Your task to perform on an android device: Go to ESPN.com Image 0: 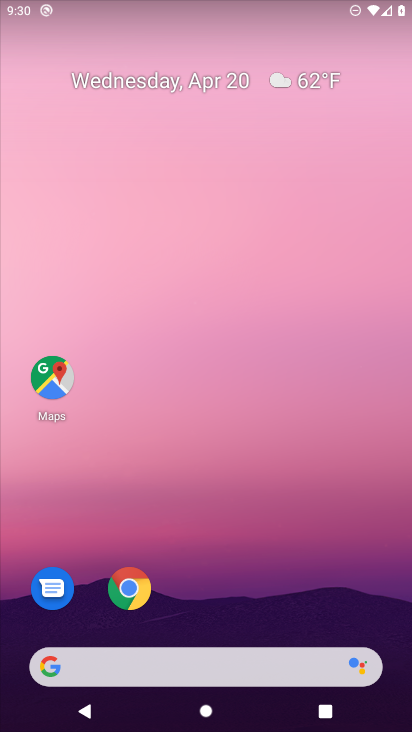
Step 0: drag from (220, 632) to (262, 24)
Your task to perform on an android device: Go to ESPN.com Image 1: 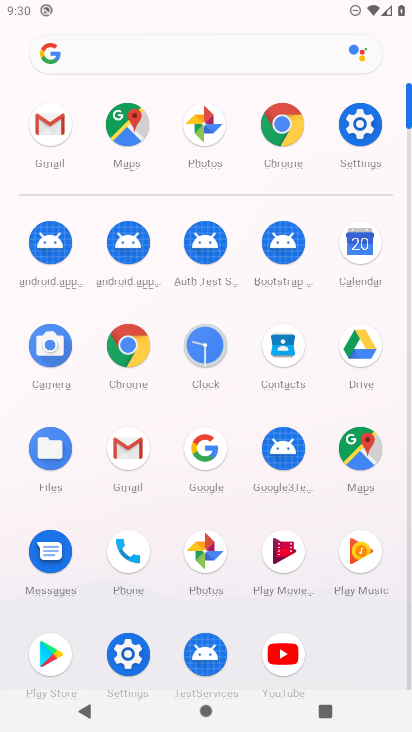
Step 1: click (125, 339)
Your task to perform on an android device: Go to ESPN.com Image 2: 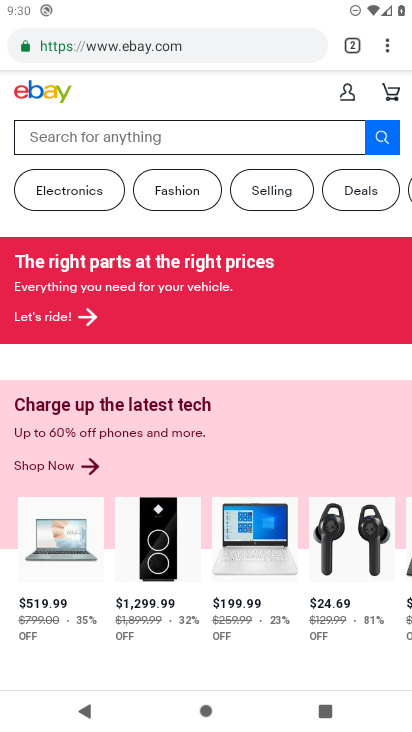
Step 2: click (355, 40)
Your task to perform on an android device: Go to ESPN.com Image 3: 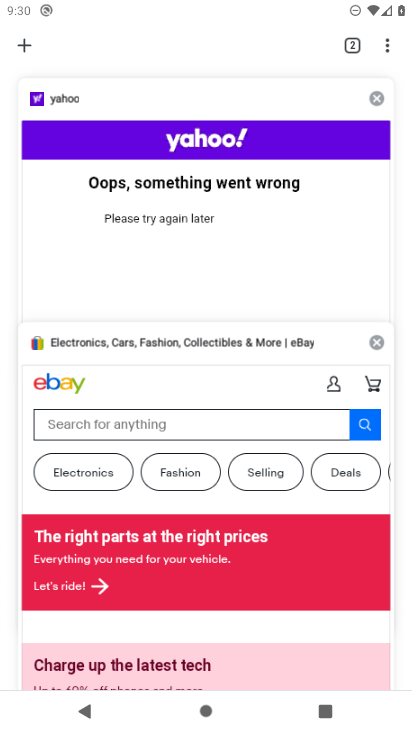
Step 3: click (374, 95)
Your task to perform on an android device: Go to ESPN.com Image 4: 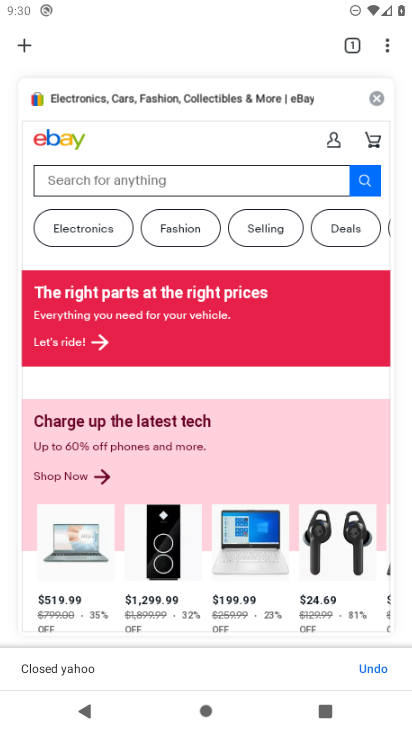
Step 4: click (374, 92)
Your task to perform on an android device: Go to ESPN.com Image 5: 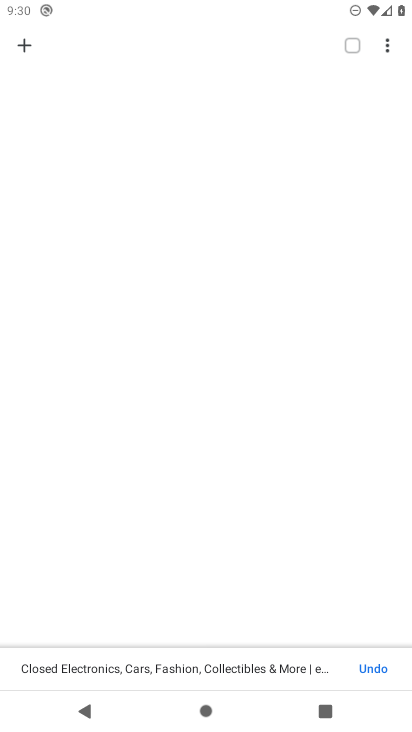
Step 5: click (27, 42)
Your task to perform on an android device: Go to ESPN.com Image 6: 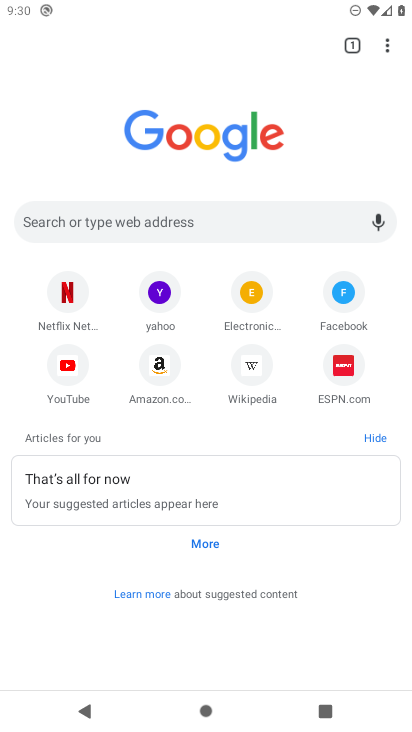
Step 6: click (123, 216)
Your task to perform on an android device: Go to ESPN.com Image 7: 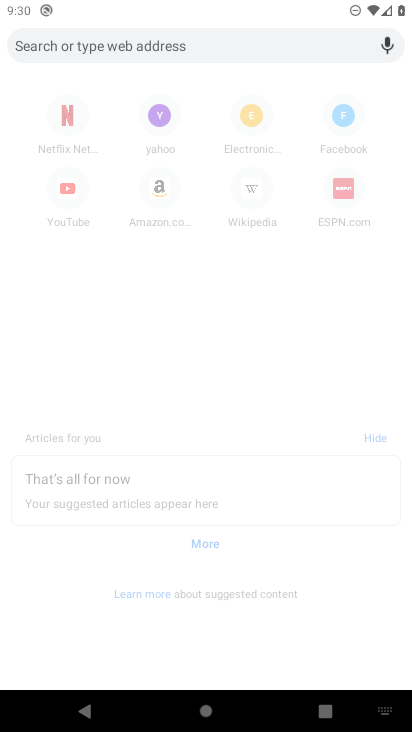
Step 7: click (288, 295)
Your task to perform on an android device: Go to ESPN.com Image 8: 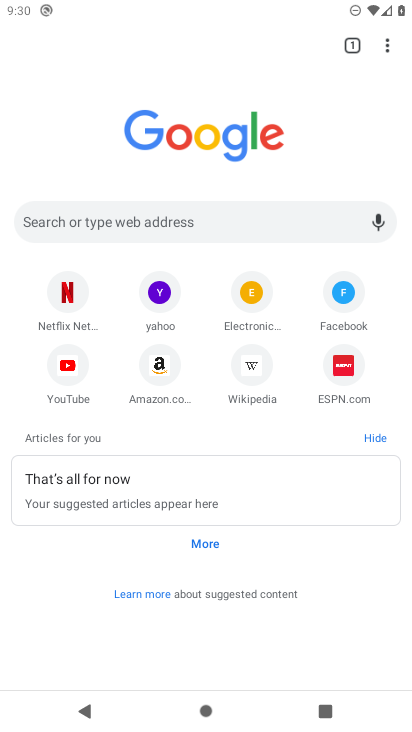
Step 8: click (343, 361)
Your task to perform on an android device: Go to ESPN.com Image 9: 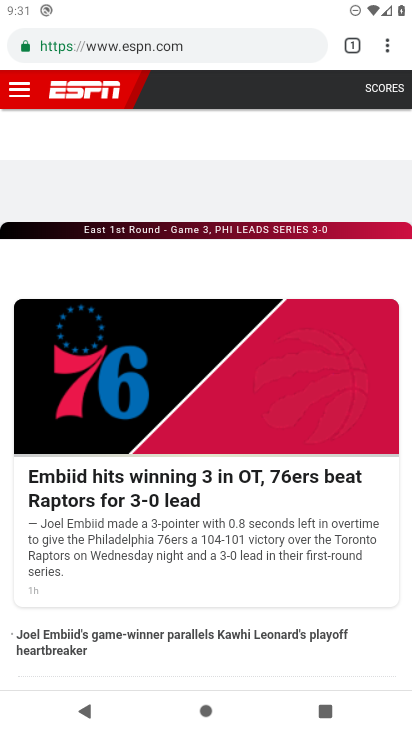
Step 9: task complete